Your task to perform on an android device: Search for pizza restaurants on Maps Image 0: 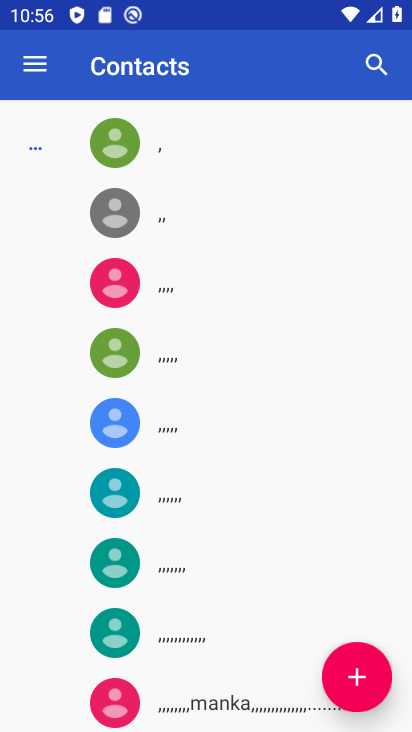
Step 0: press back button
Your task to perform on an android device: Search for pizza restaurants on Maps Image 1: 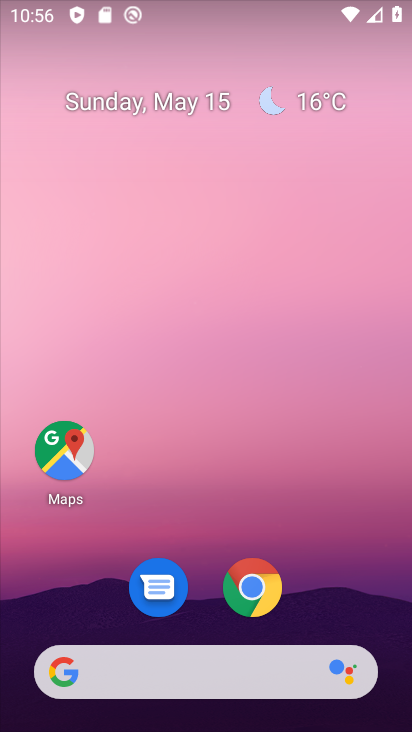
Step 1: click (59, 447)
Your task to perform on an android device: Search for pizza restaurants on Maps Image 2: 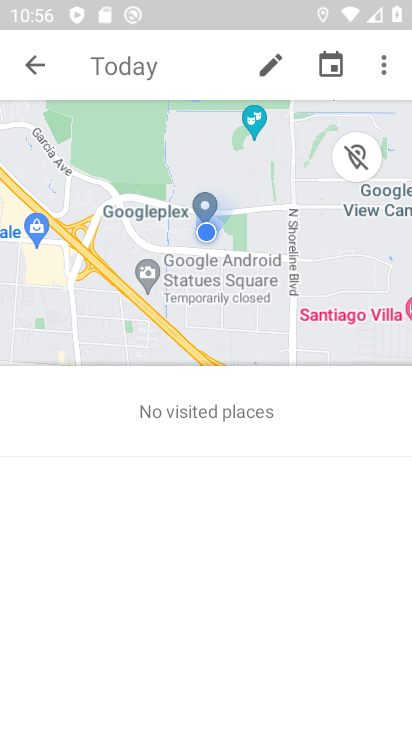
Step 2: click (33, 65)
Your task to perform on an android device: Search for pizza restaurants on Maps Image 3: 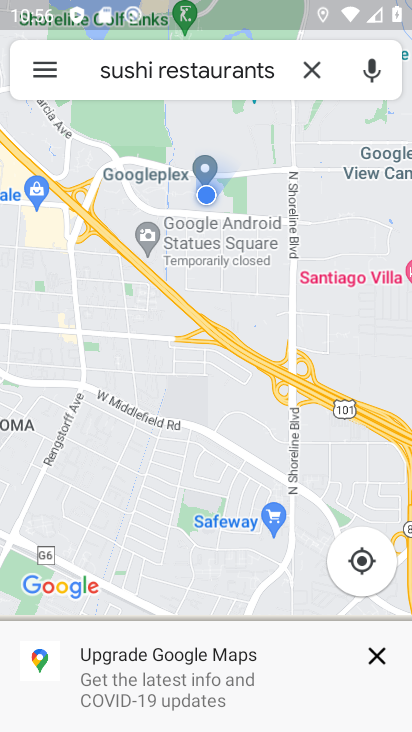
Step 3: click (305, 61)
Your task to perform on an android device: Search for pizza restaurants on Maps Image 4: 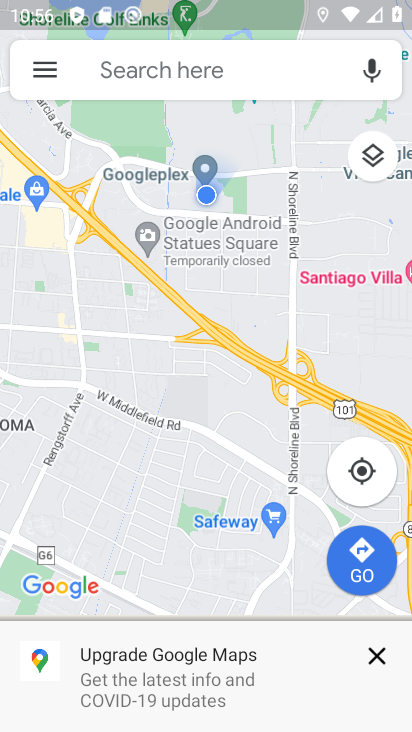
Step 4: click (244, 78)
Your task to perform on an android device: Search for pizza restaurants on Maps Image 5: 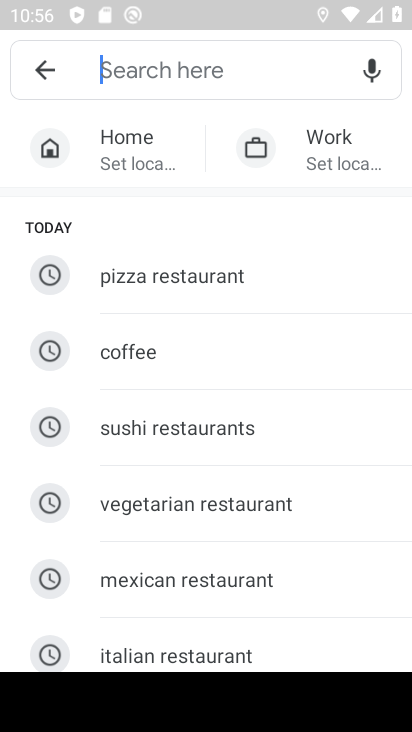
Step 5: type " pizza restaurants"
Your task to perform on an android device: Search for pizza restaurants on Maps Image 6: 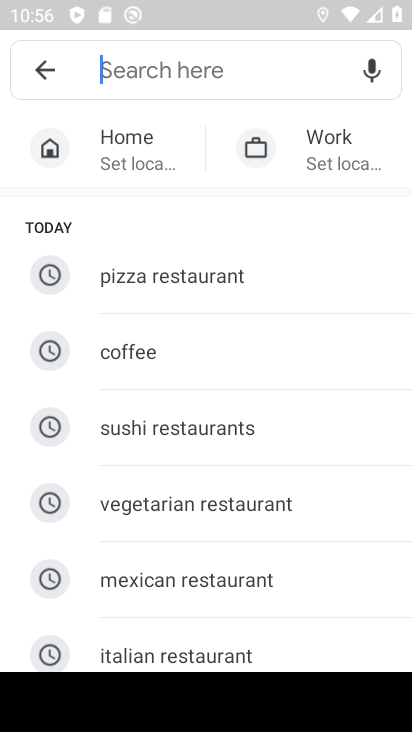
Step 6: click (228, 272)
Your task to perform on an android device: Search for pizza restaurants on Maps Image 7: 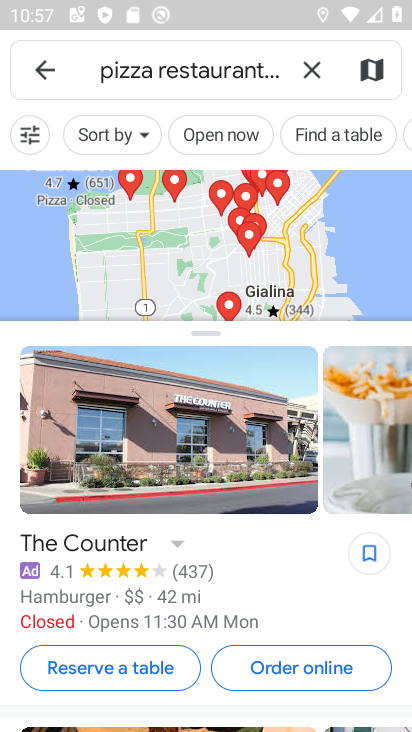
Step 7: task complete